Your task to perform on an android device: open app "Microsoft Excel" (install if not already installed) and enter user name: "kidnappers@icloud.com" and password: "Bessemerizes" Image 0: 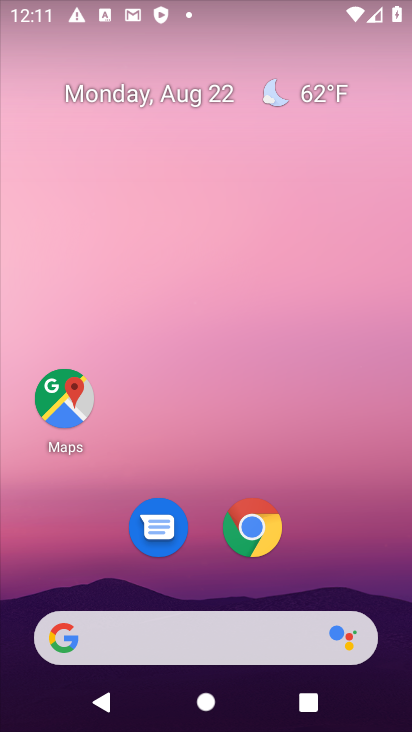
Step 0: drag from (228, 594) to (253, 38)
Your task to perform on an android device: open app "Microsoft Excel" (install if not already installed) and enter user name: "kidnappers@icloud.com" and password: "Bessemerizes" Image 1: 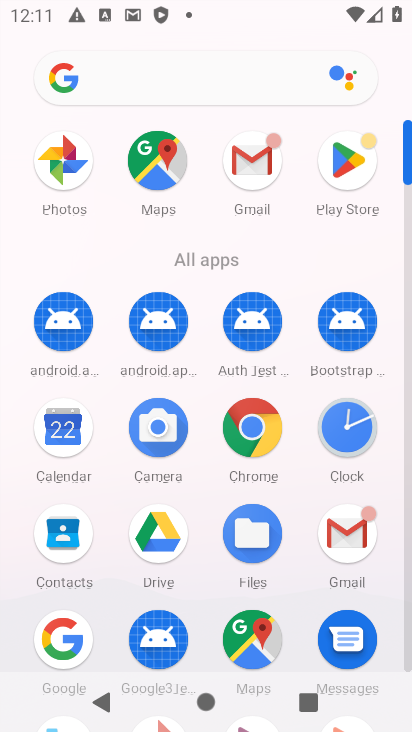
Step 1: click (354, 170)
Your task to perform on an android device: open app "Microsoft Excel" (install if not already installed) and enter user name: "kidnappers@icloud.com" and password: "Bessemerizes" Image 2: 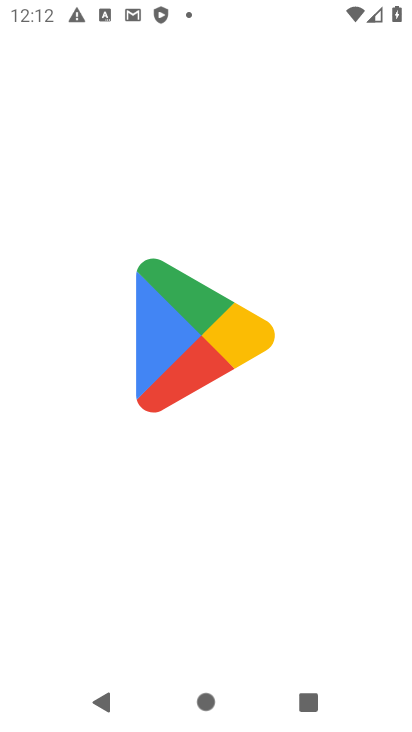
Step 2: task complete